Your task to perform on an android device: Open network settings Image 0: 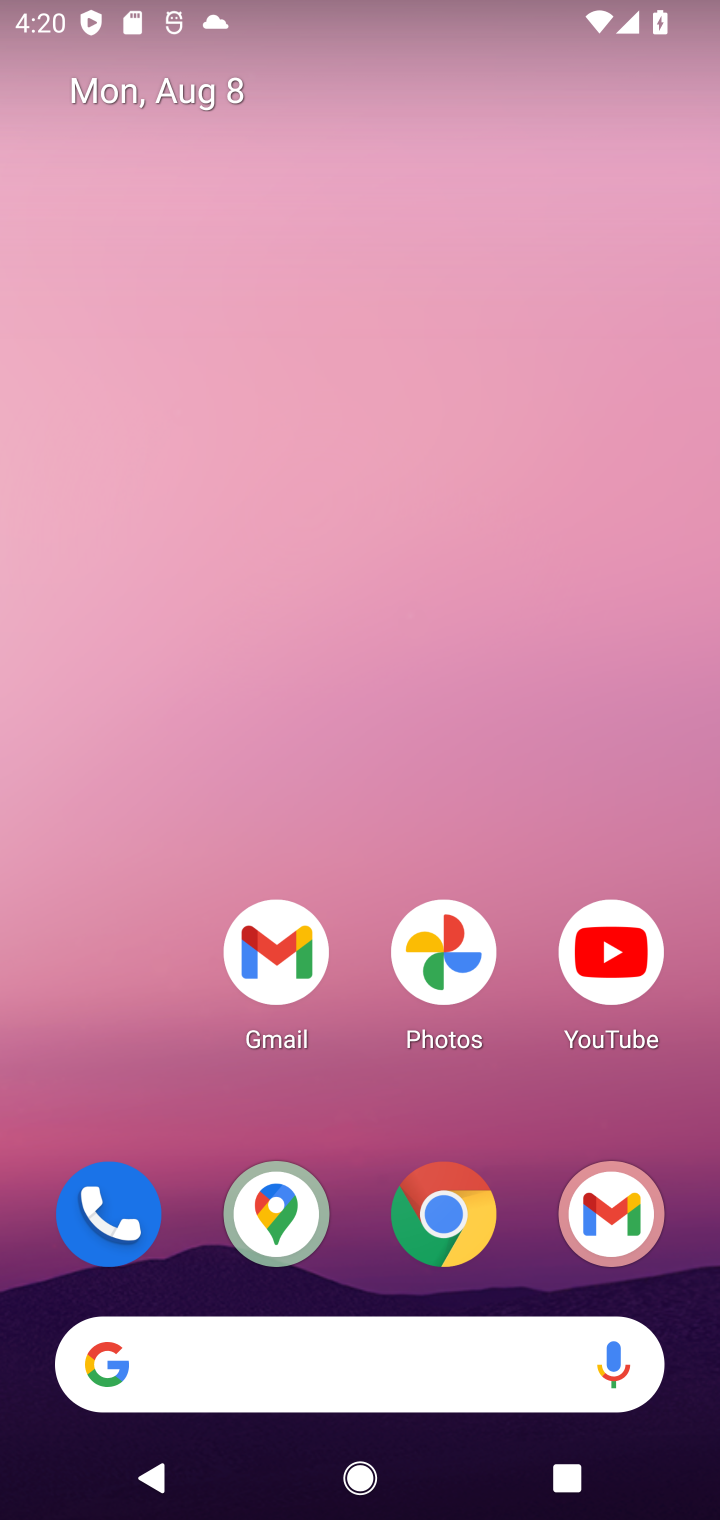
Step 0: drag from (333, 828) to (326, 121)
Your task to perform on an android device: Open network settings Image 1: 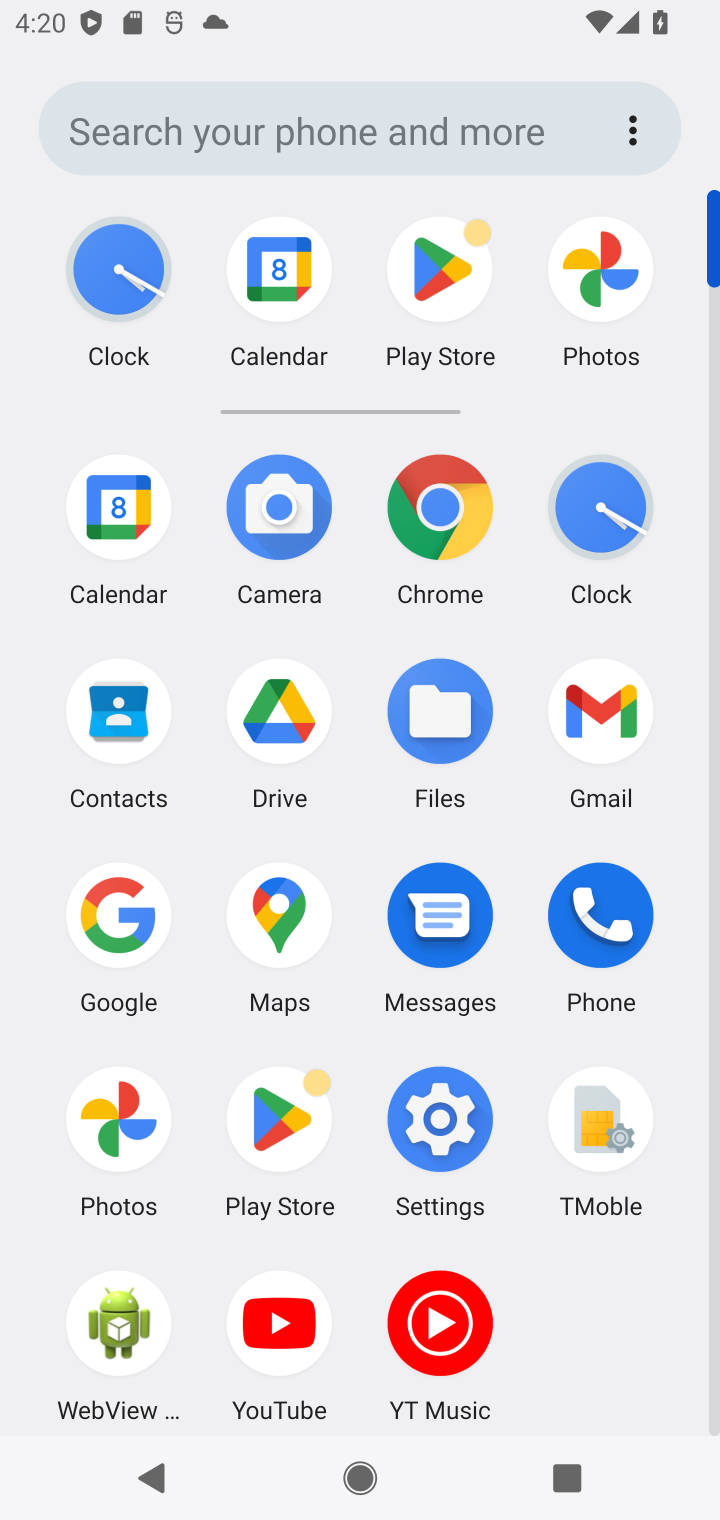
Step 1: click (442, 1119)
Your task to perform on an android device: Open network settings Image 2: 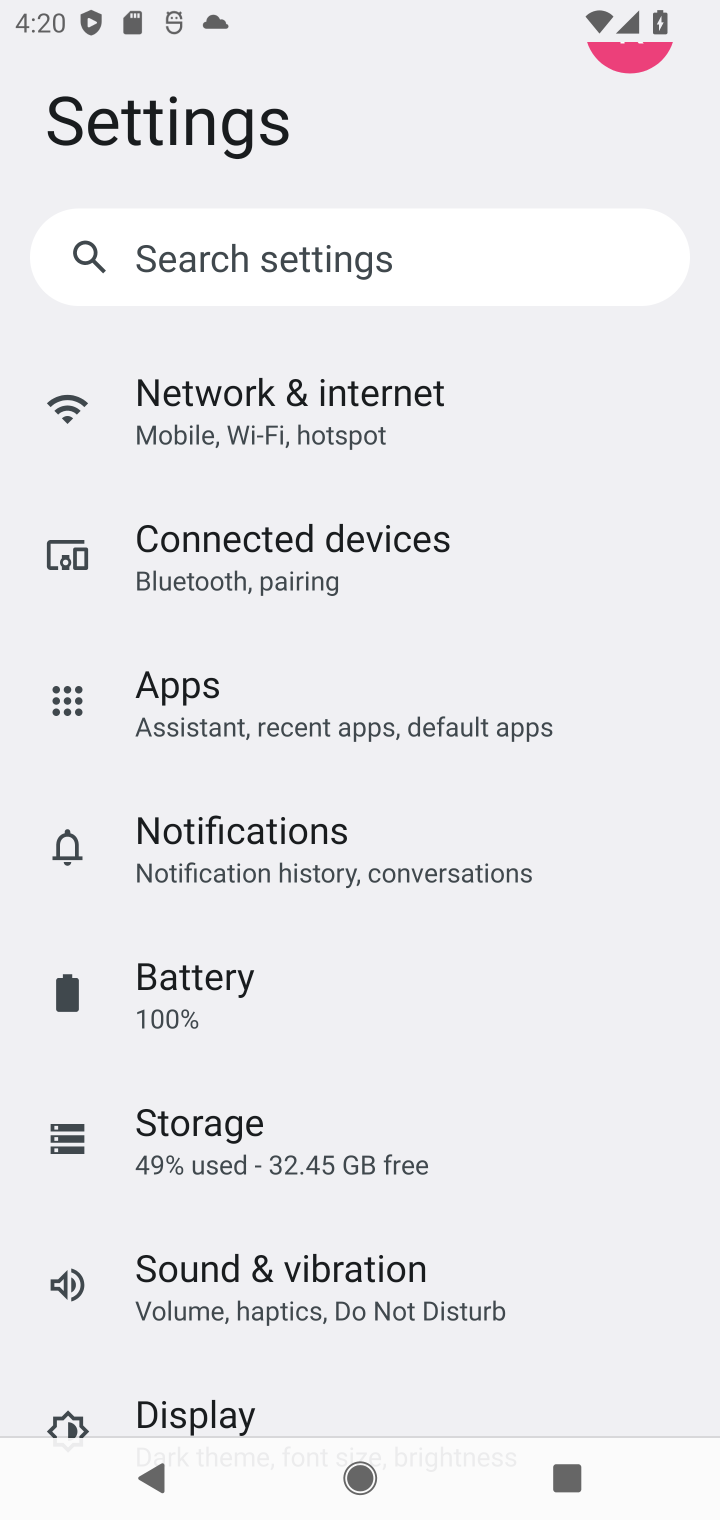
Step 2: click (273, 409)
Your task to perform on an android device: Open network settings Image 3: 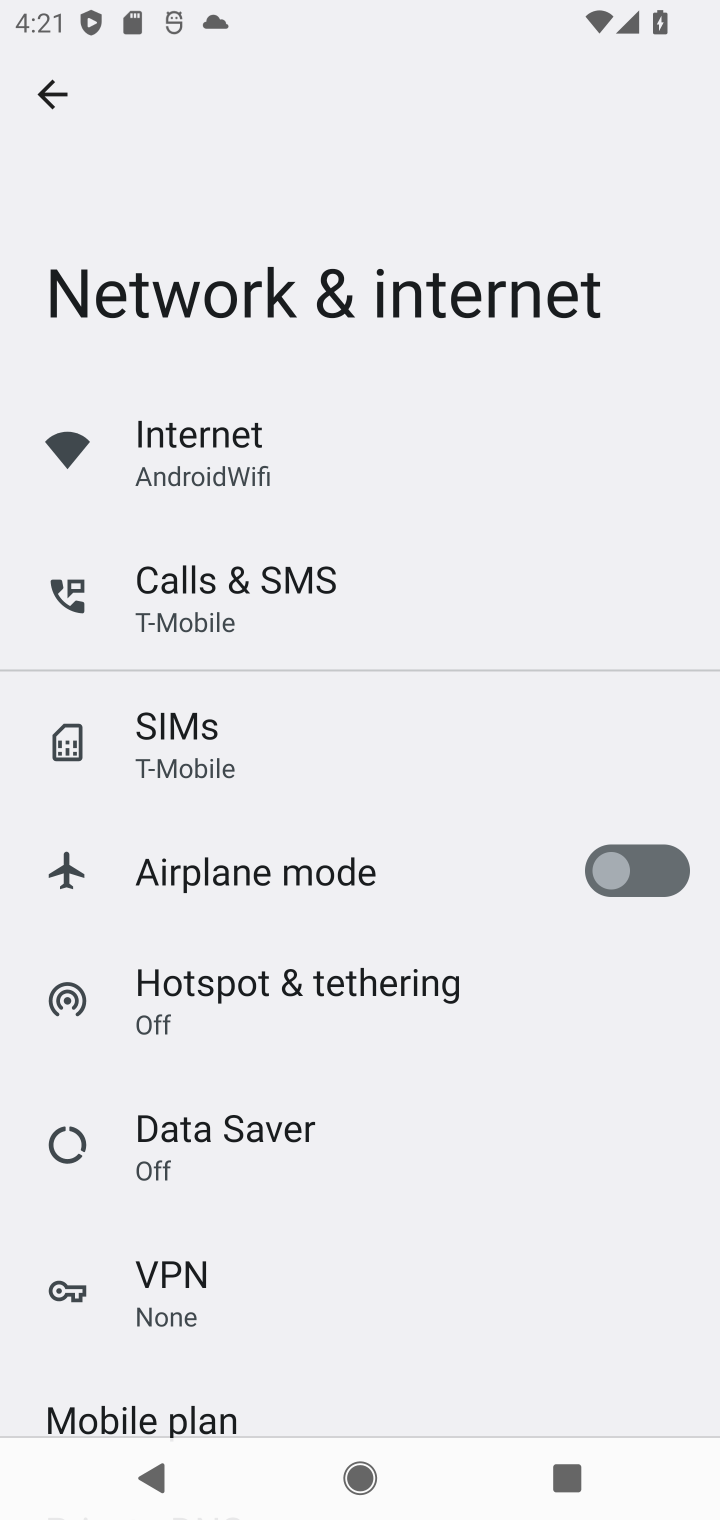
Step 3: task complete